Your task to perform on an android device: Go to accessibility settings Image 0: 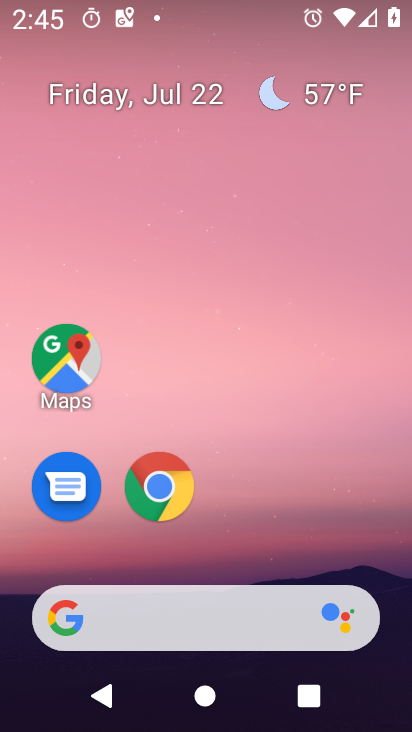
Step 0: press home button
Your task to perform on an android device: Go to accessibility settings Image 1: 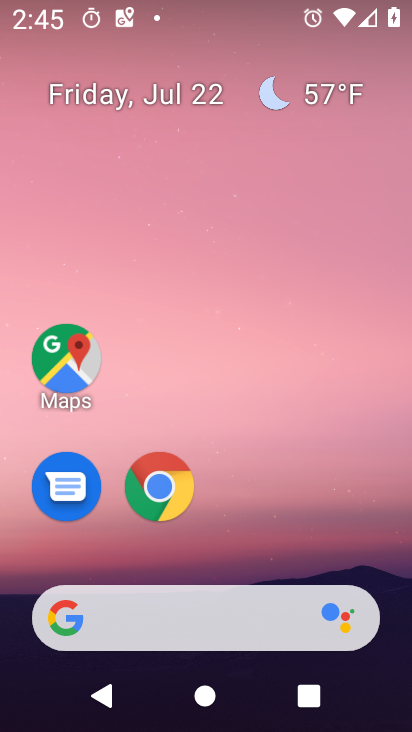
Step 1: drag from (359, 495) to (382, 120)
Your task to perform on an android device: Go to accessibility settings Image 2: 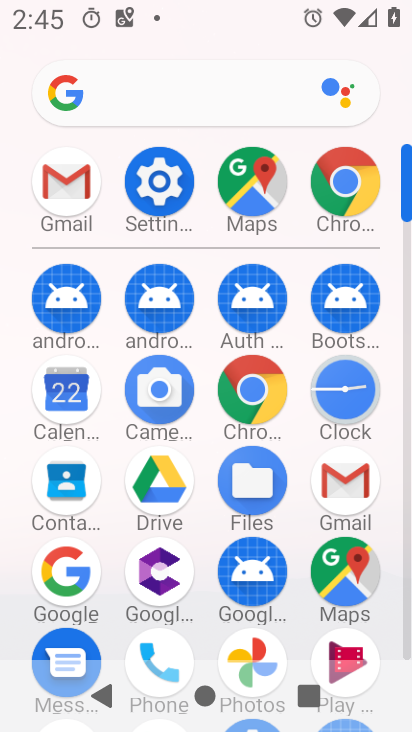
Step 2: click (171, 192)
Your task to perform on an android device: Go to accessibility settings Image 3: 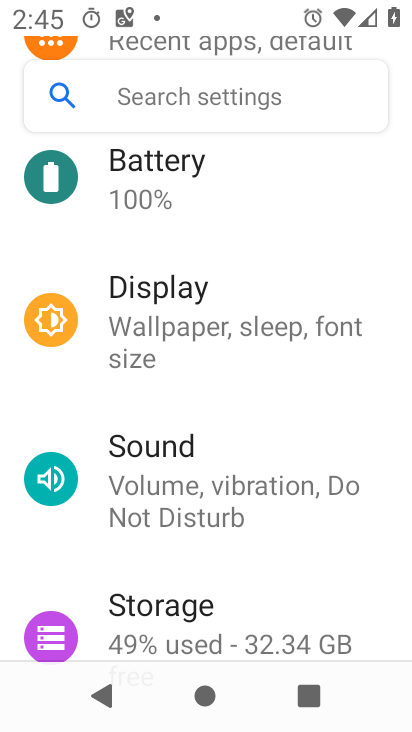
Step 3: drag from (366, 374) to (373, 326)
Your task to perform on an android device: Go to accessibility settings Image 4: 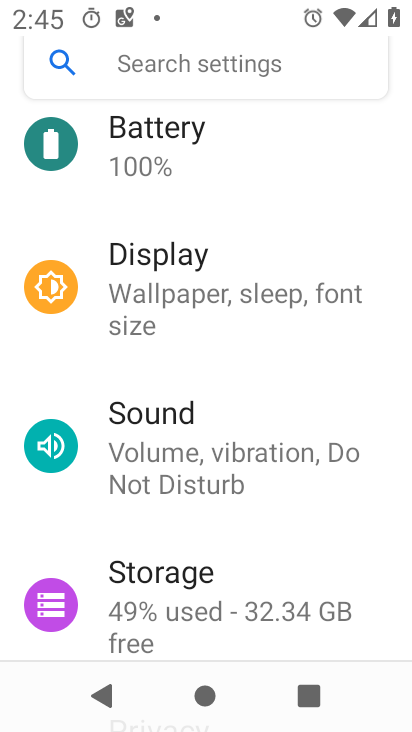
Step 4: drag from (373, 380) to (375, 309)
Your task to perform on an android device: Go to accessibility settings Image 5: 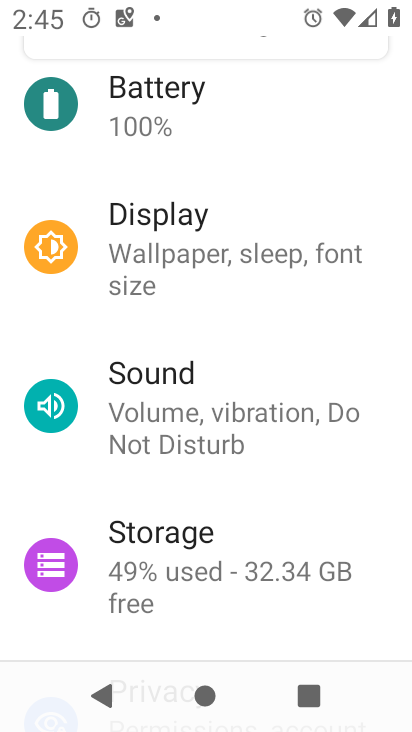
Step 5: drag from (372, 390) to (379, 318)
Your task to perform on an android device: Go to accessibility settings Image 6: 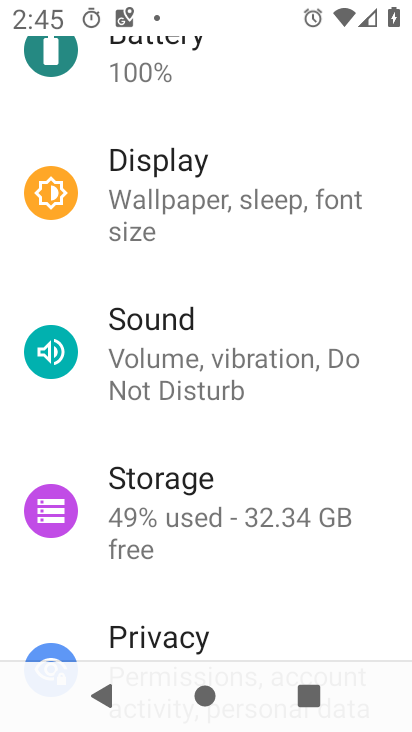
Step 6: drag from (367, 397) to (367, 300)
Your task to perform on an android device: Go to accessibility settings Image 7: 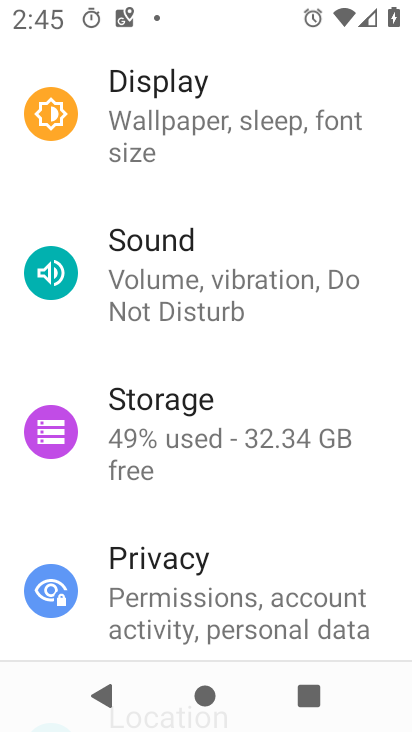
Step 7: drag from (381, 407) to (379, 359)
Your task to perform on an android device: Go to accessibility settings Image 8: 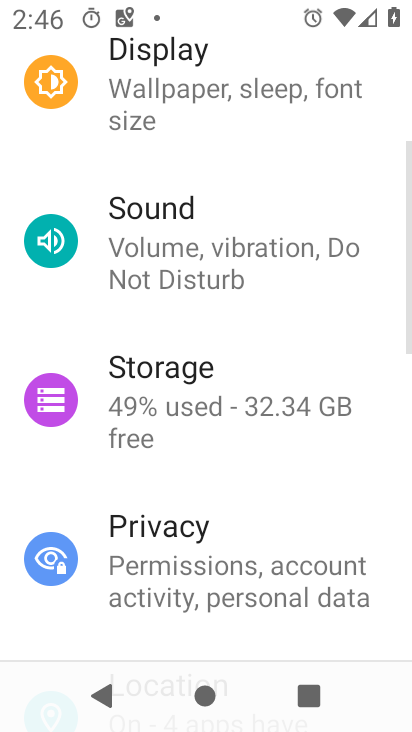
Step 8: drag from (367, 433) to (365, 357)
Your task to perform on an android device: Go to accessibility settings Image 9: 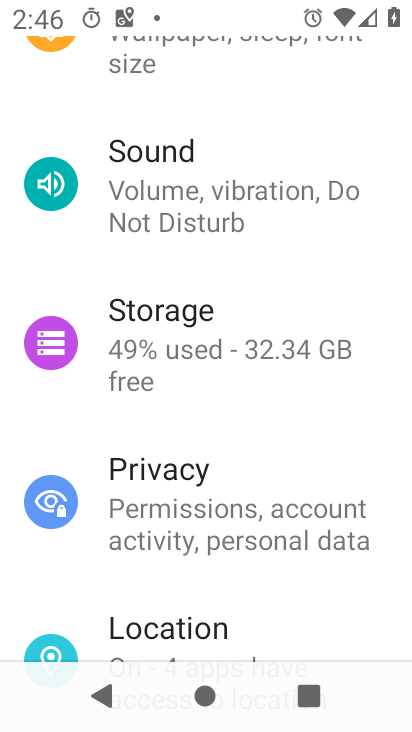
Step 9: drag from (353, 437) to (362, 363)
Your task to perform on an android device: Go to accessibility settings Image 10: 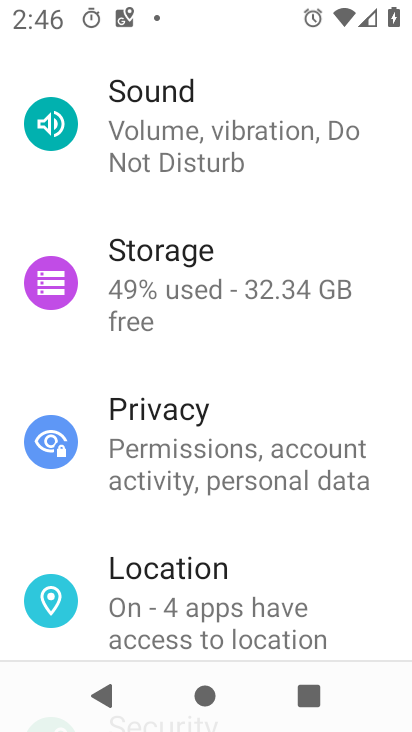
Step 10: drag from (366, 510) to (366, 433)
Your task to perform on an android device: Go to accessibility settings Image 11: 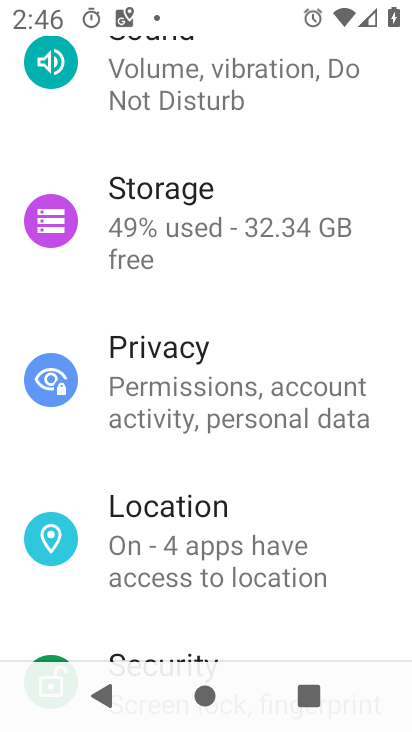
Step 11: drag from (360, 492) to (362, 405)
Your task to perform on an android device: Go to accessibility settings Image 12: 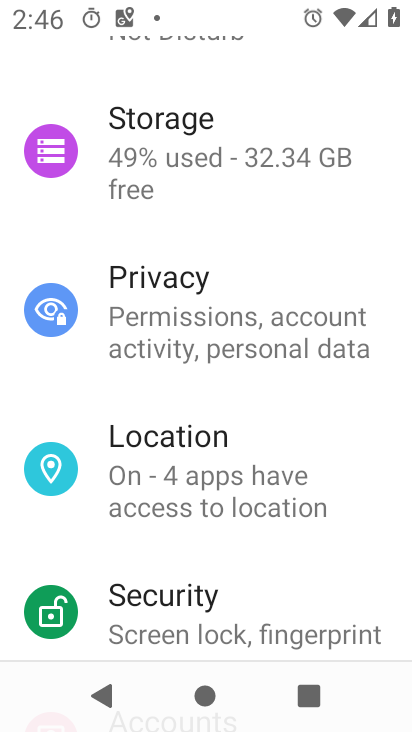
Step 12: drag from (359, 482) to (370, 399)
Your task to perform on an android device: Go to accessibility settings Image 13: 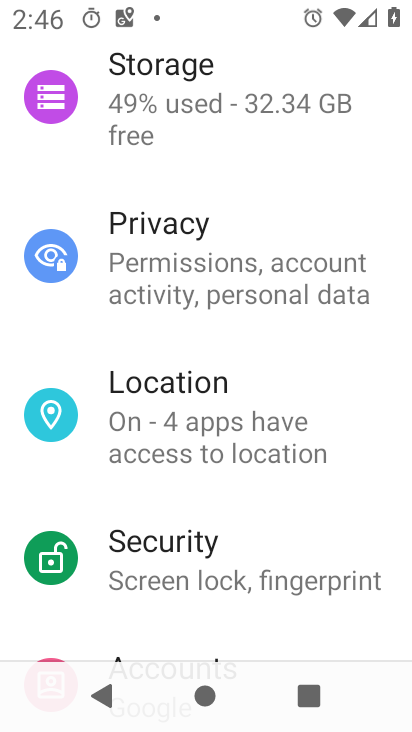
Step 13: drag from (371, 488) to (367, 416)
Your task to perform on an android device: Go to accessibility settings Image 14: 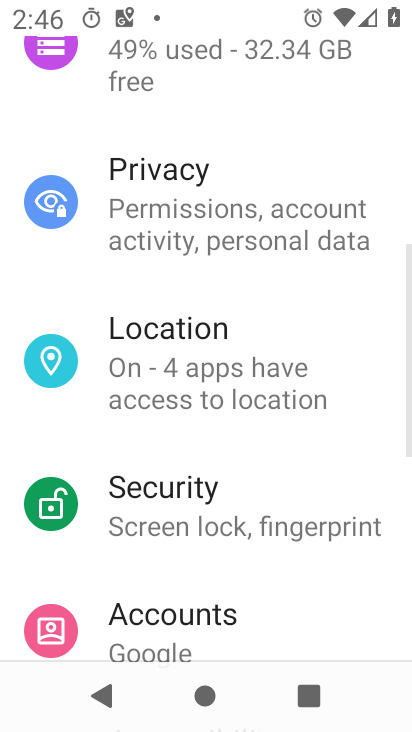
Step 14: drag from (353, 579) to (336, 462)
Your task to perform on an android device: Go to accessibility settings Image 15: 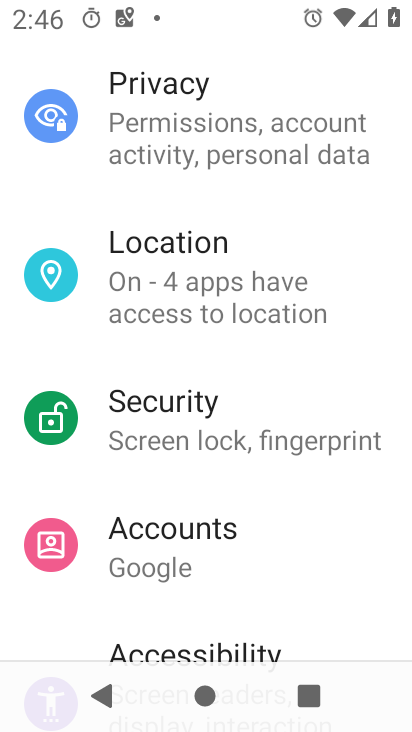
Step 15: drag from (319, 556) to (308, 421)
Your task to perform on an android device: Go to accessibility settings Image 16: 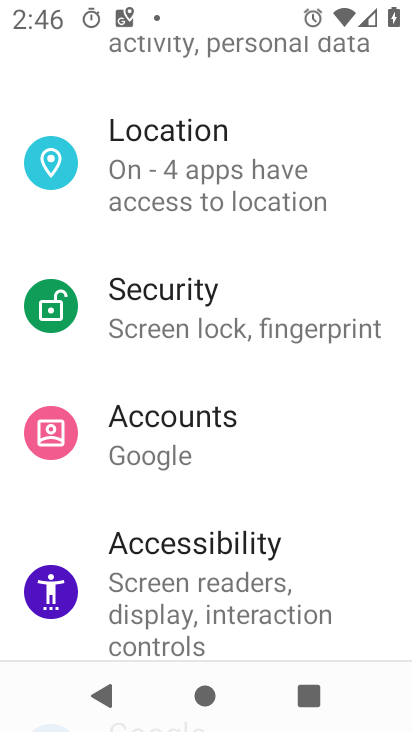
Step 16: drag from (314, 532) to (319, 447)
Your task to perform on an android device: Go to accessibility settings Image 17: 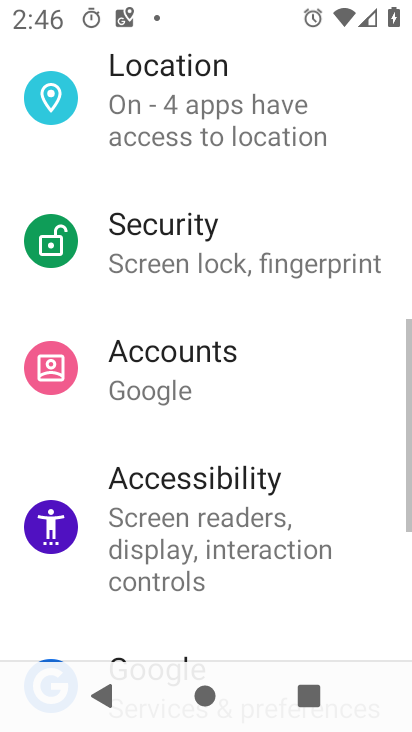
Step 17: click (309, 519)
Your task to perform on an android device: Go to accessibility settings Image 18: 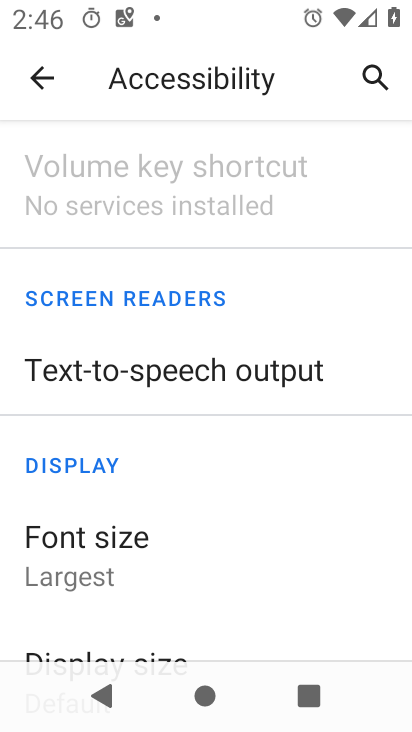
Step 18: task complete